Your task to perform on an android device: open wifi settings Image 0: 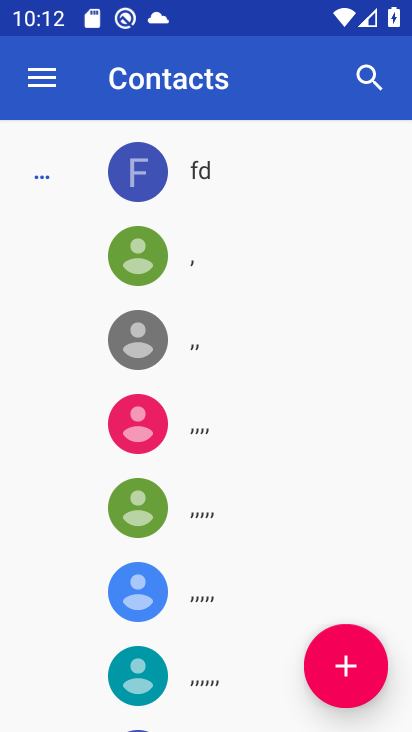
Step 0: press home button
Your task to perform on an android device: open wifi settings Image 1: 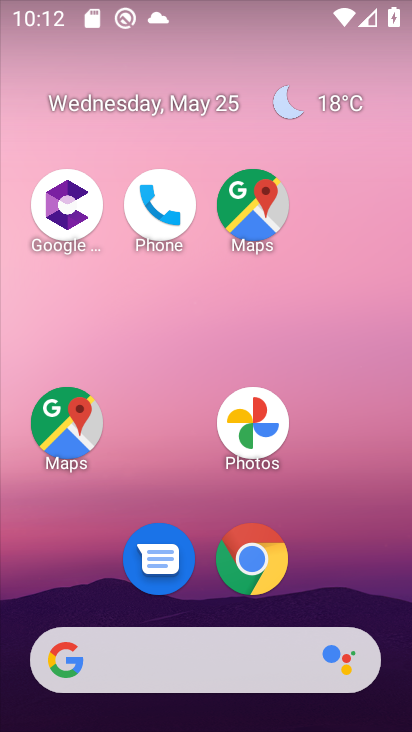
Step 1: drag from (309, 599) to (260, 14)
Your task to perform on an android device: open wifi settings Image 2: 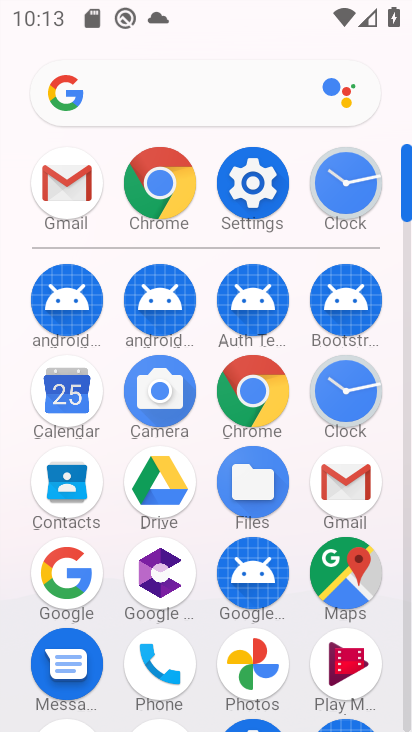
Step 2: click (264, 189)
Your task to perform on an android device: open wifi settings Image 3: 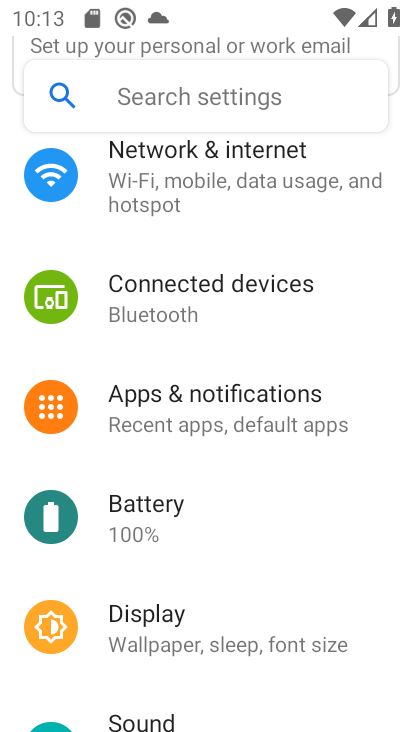
Step 3: click (257, 180)
Your task to perform on an android device: open wifi settings Image 4: 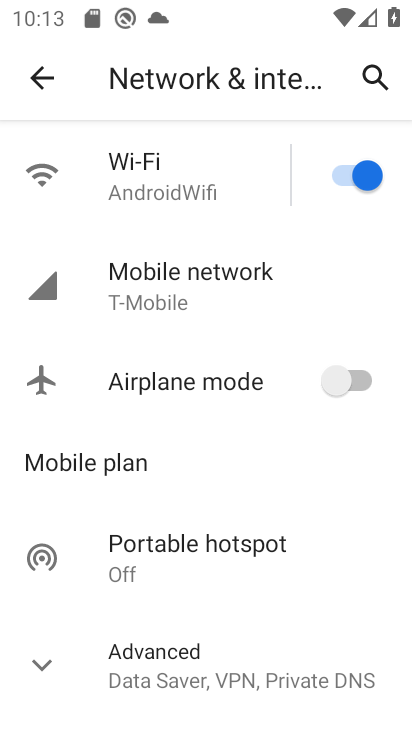
Step 4: click (160, 172)
Your task to perform on an android device: open wifi settings Image 5: 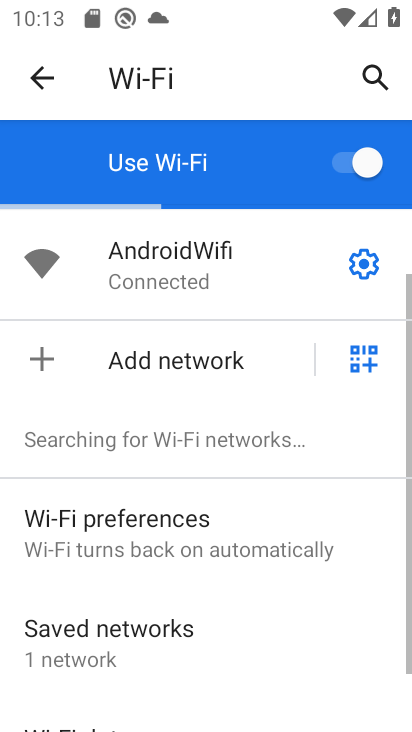
Step 5: task complete